Your task to perform on an android device: see creations saved in the google photos Image 0: 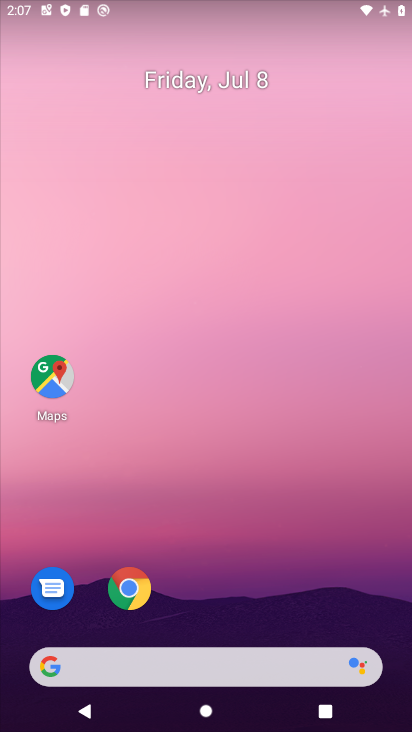
Step 0: press home button
Your task to perform on an android device: see creations saved in the google photos Image 1: 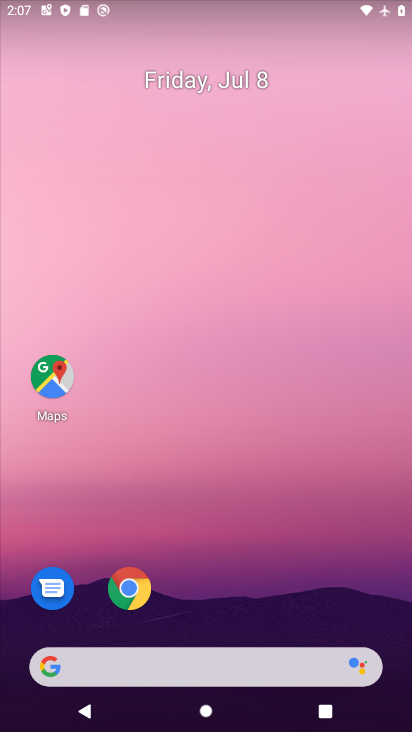
Step 1: drag from (265, 612) to (253, 66)
Your task to perform on an android device: see creations saved in the google photos Image 2: 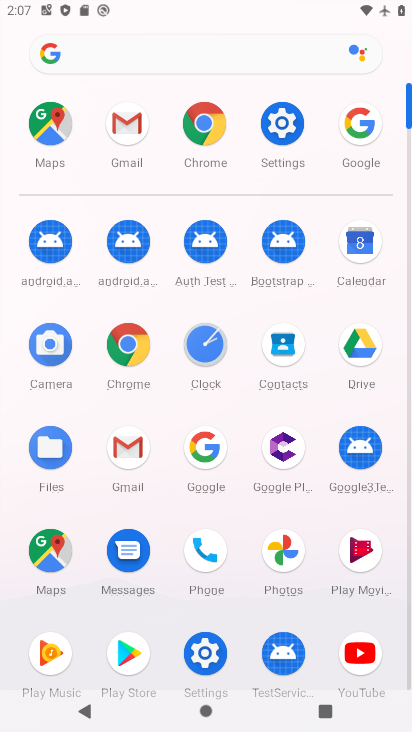
Step 2: click (271, 543)
Your task to perform on an android device: see creations saved in the google photos Image 3: 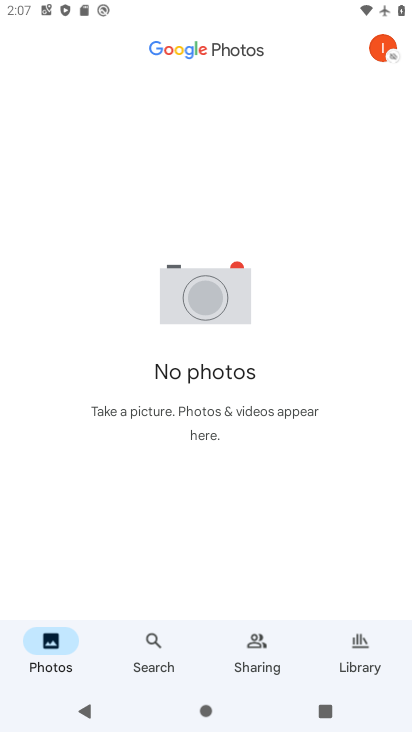
Step 3: click (154, 642)
Your task to perform on an android device: see creations saved in the google photos Image 4: 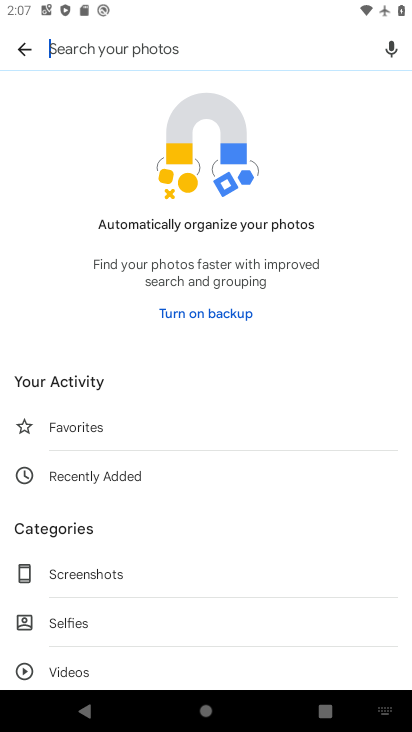
Step 4: drag from (273, 561) to (308, 264)
Your task to perform on an android device: see creations saved in the google photos Image 5: 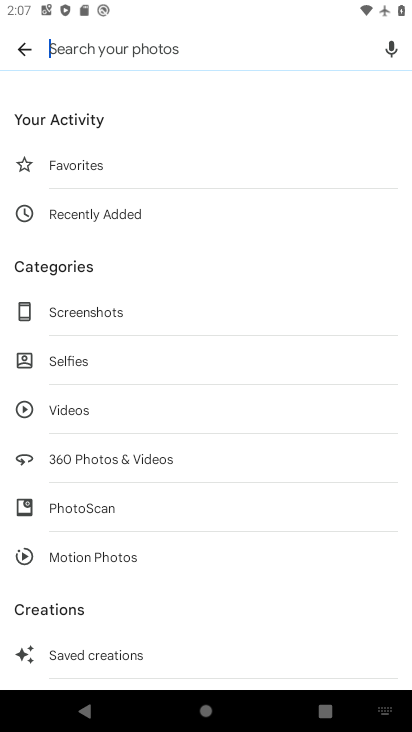
Step 5: click (86, 656)
Your task to perform on an android device: see creations saved in the google photos Image 6: 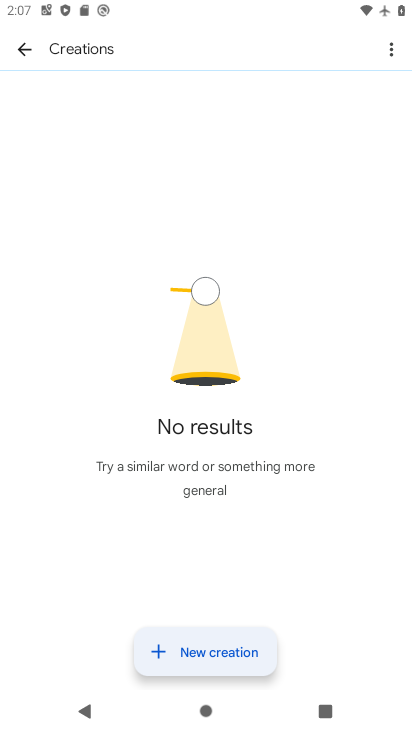
Step 6: task complete